Your task to perform on an android device: toggle improve location accuracy Image 0: 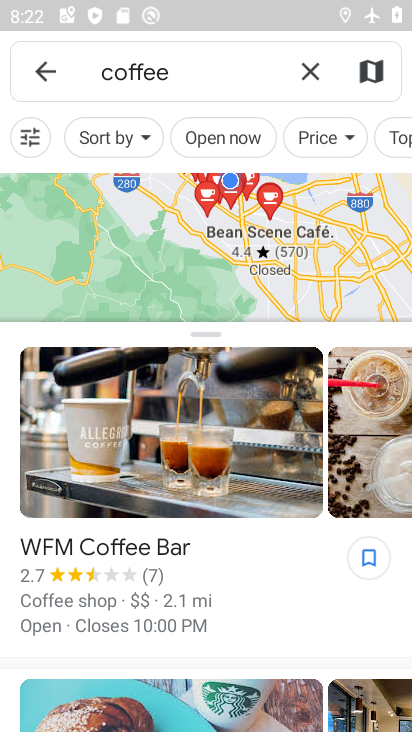
Step 0: press home button
Your task to perform on an android device: toggle improve location accuracy Image 1: 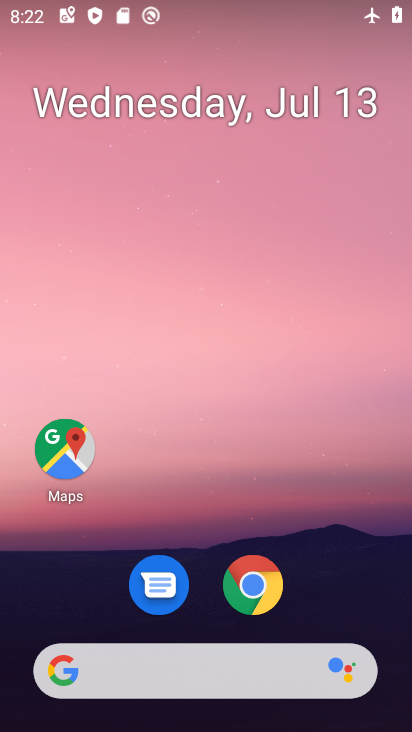
Step 1: drag from (329, 543) to (354, 29)
Your task to perform on an android device: toggle improve location accuracy Image 2: 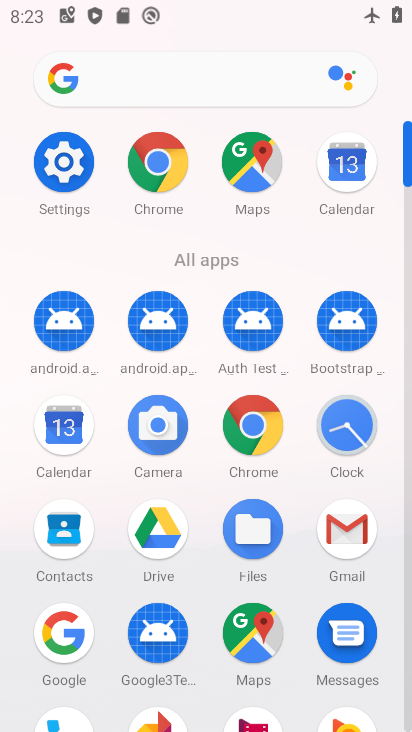
Step 2: click (74, 174)
Your task to perform on an android device: toggle improve location accuracy Image 3: 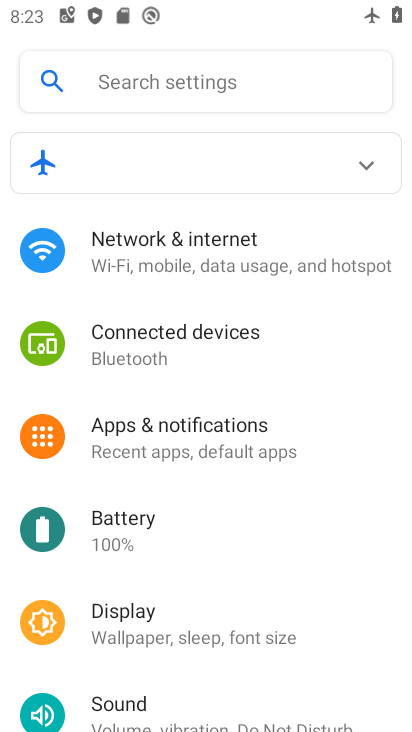
Step 3: drag from (255, 533) to (221, 140)
Your task to perform on an android device: toggle improve location accuracy Image 4: 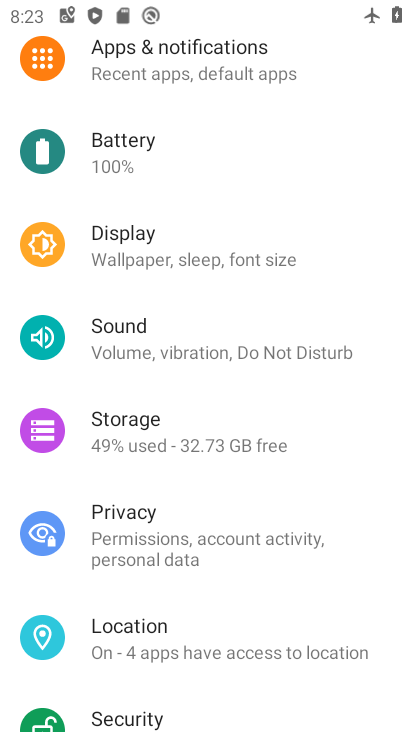
Step 4: click (207, 639)
Your task to perform on an android device: toggle improve location accuracy Image 5: 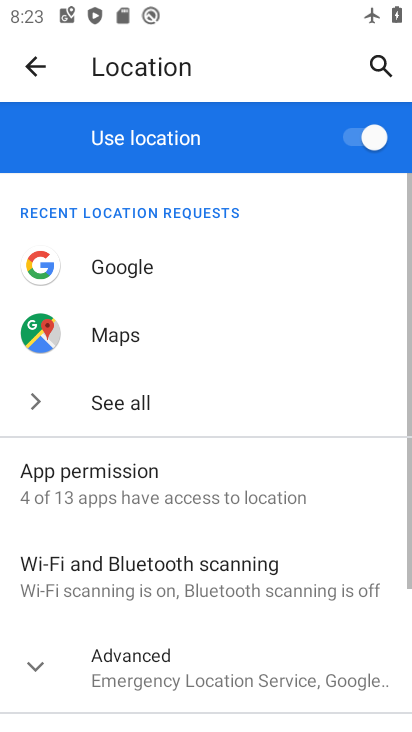
Step 5: click (34, 663)
Your task to perform on an android device: toggle improve location accuracy Image 6: 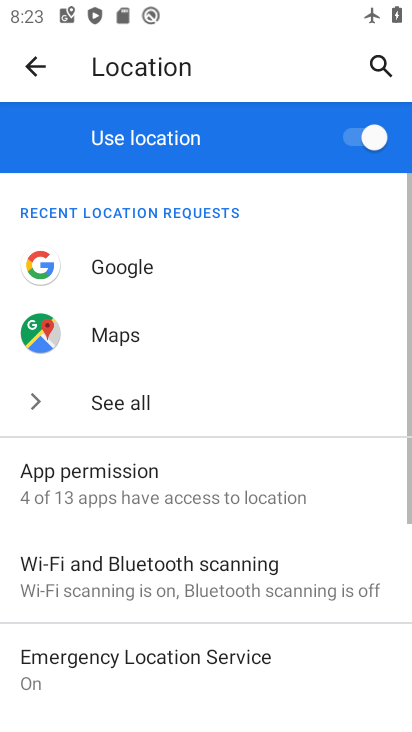
Step 6: drag from (291, 538) to (286, 217)
Your task to perform on an android device: toggle improve location accuracy Image 7: 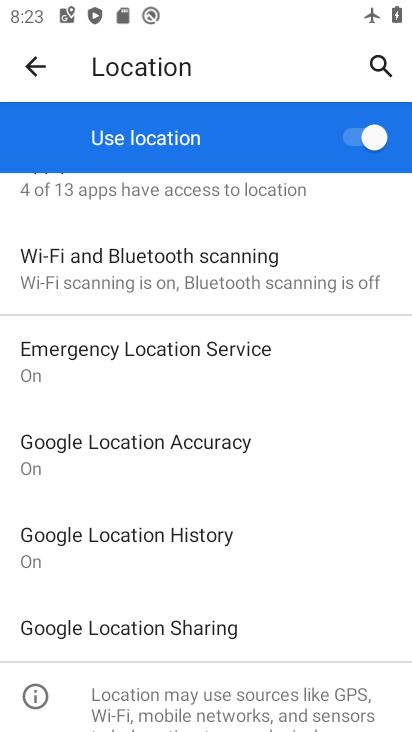
Step 7: click (201, 454)
Your task to perform on an android device: toggle improve location accuracy Image 8: 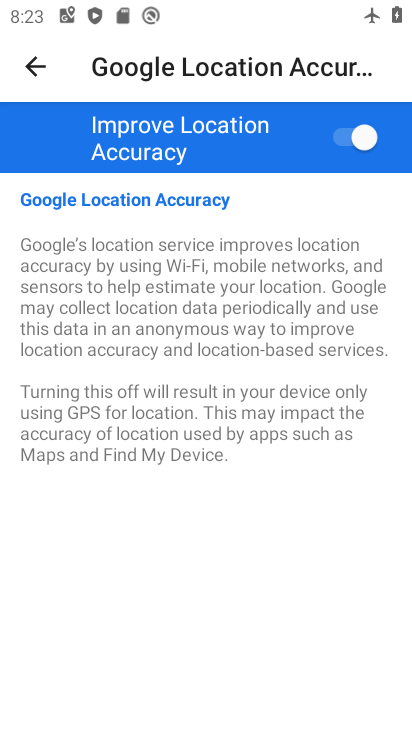
Step 8: click (349, 137)
Your task to perform on an android device: toggle improve location accuracy Image 9: 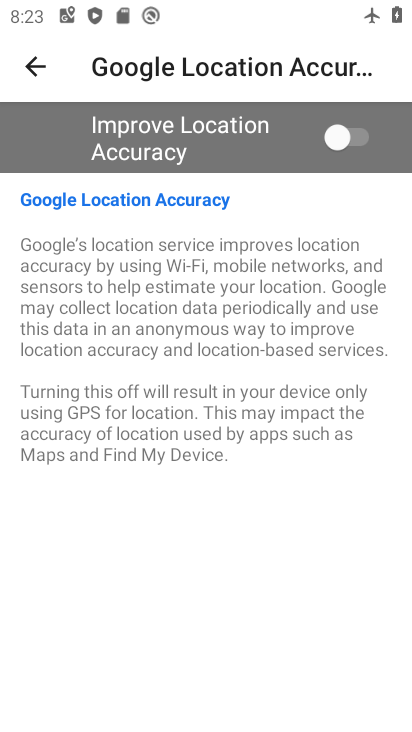
Step 9: click (26, 54)
Your task to perform on an android device: toggle improve location accuracy Image 10: 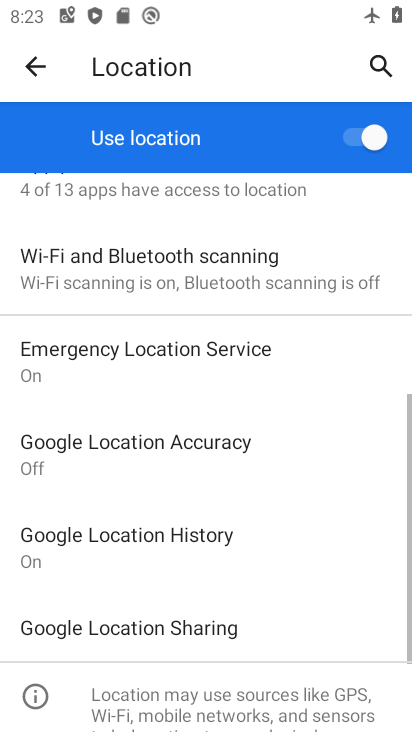
Step 10: click (35, 59)
Your task to perform on an android device: toggle improve location accuracy Image 11: 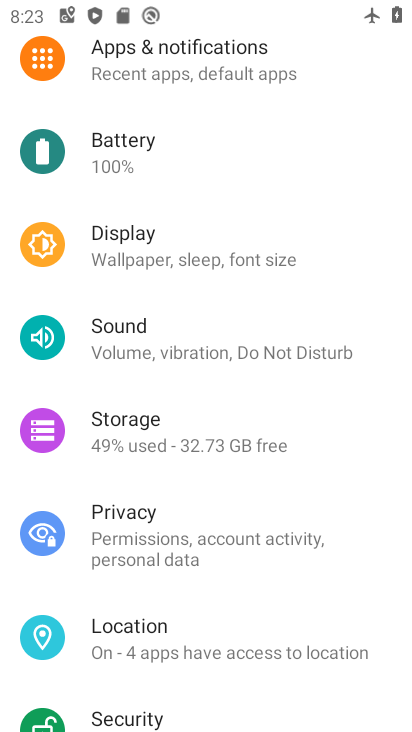
Step 11: task complete